Your task to perform on an android device: manage bookmarks in the chrome app Image 0: 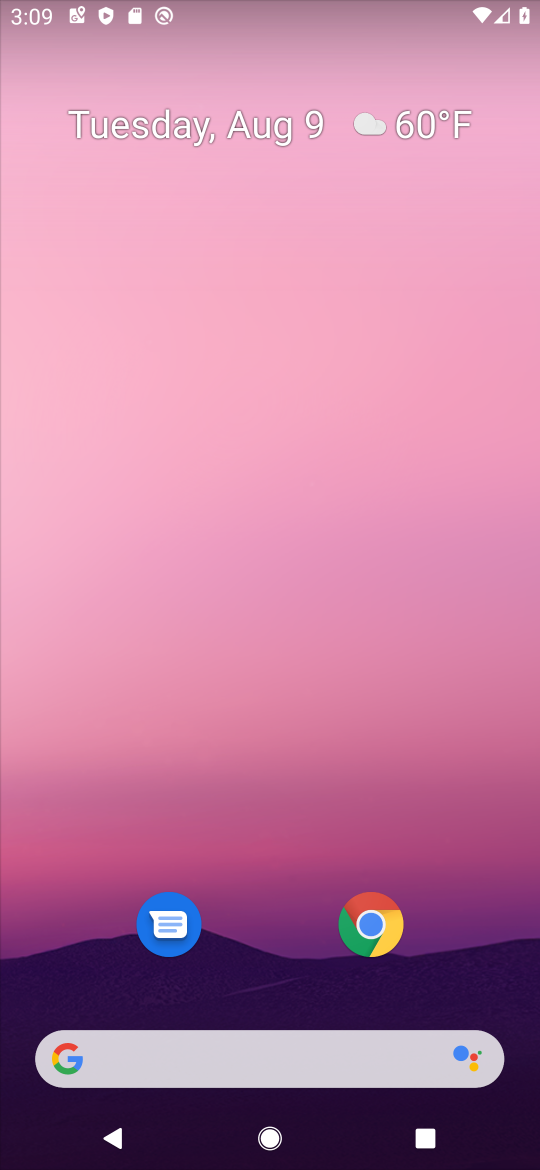
Step 0: drag from (281, 878) to (376, 0)
Your task to perform on an android device: manage bookmarks in the chrome app Image 1: 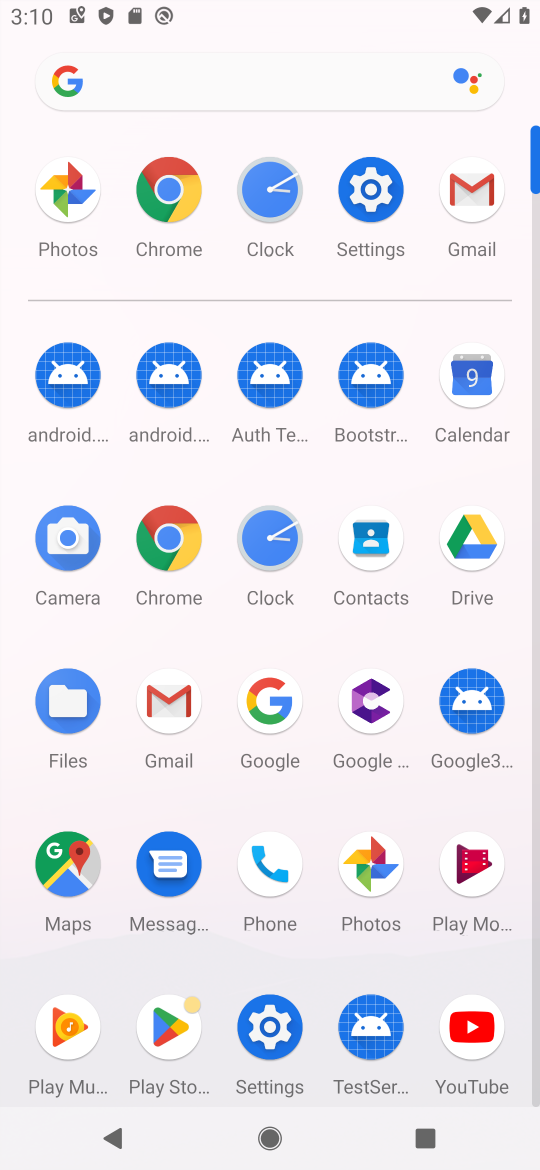
Step 1: click (180, 193)
Your task to perform on an android device: manage bookmarks in the chrome app Image 2: 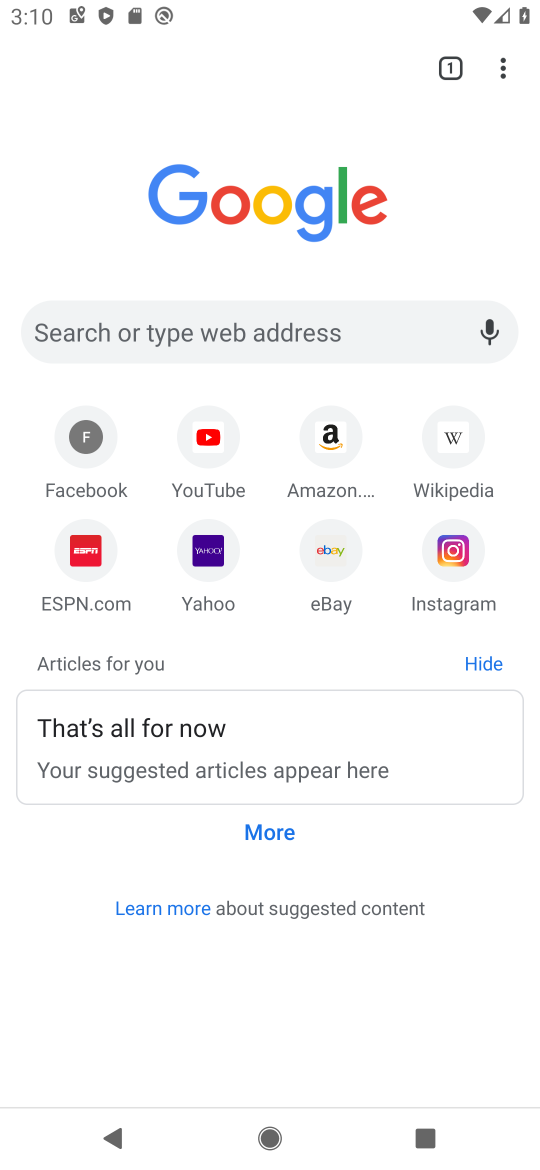
Step 2: click (506, 66)
Your task to perform on an android device: manage bookmarks in the chrome app Image 3: 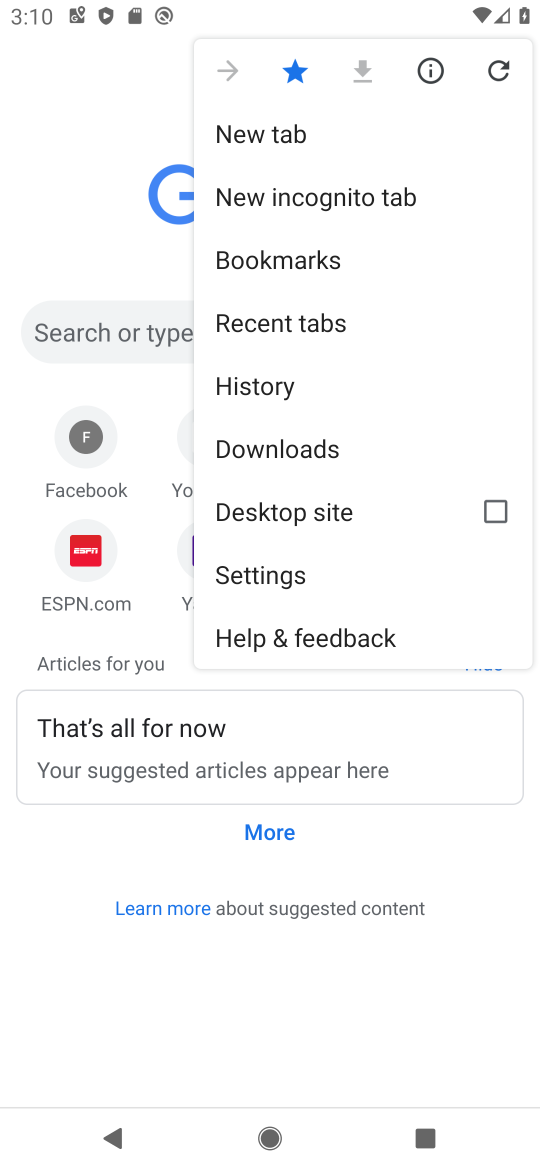
Step 3: click (333, 257)
Your task to perform on an android device: manage bookmarks in the chrome app Image 4: 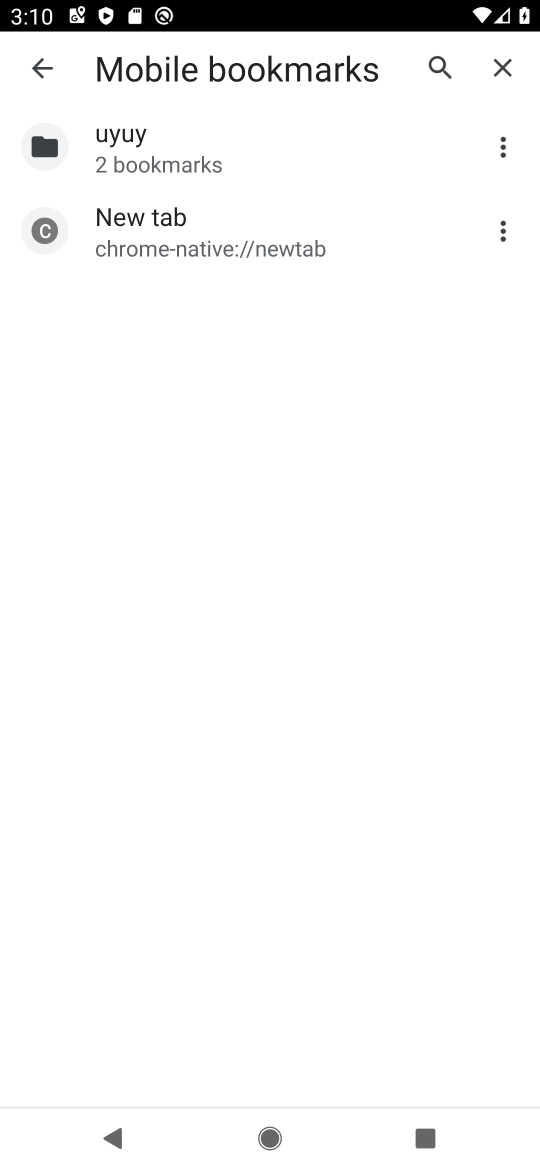
Step 4: click (505, 233)
Your task to perform on an android device: manage bookmarks in the chrome app Image 5: 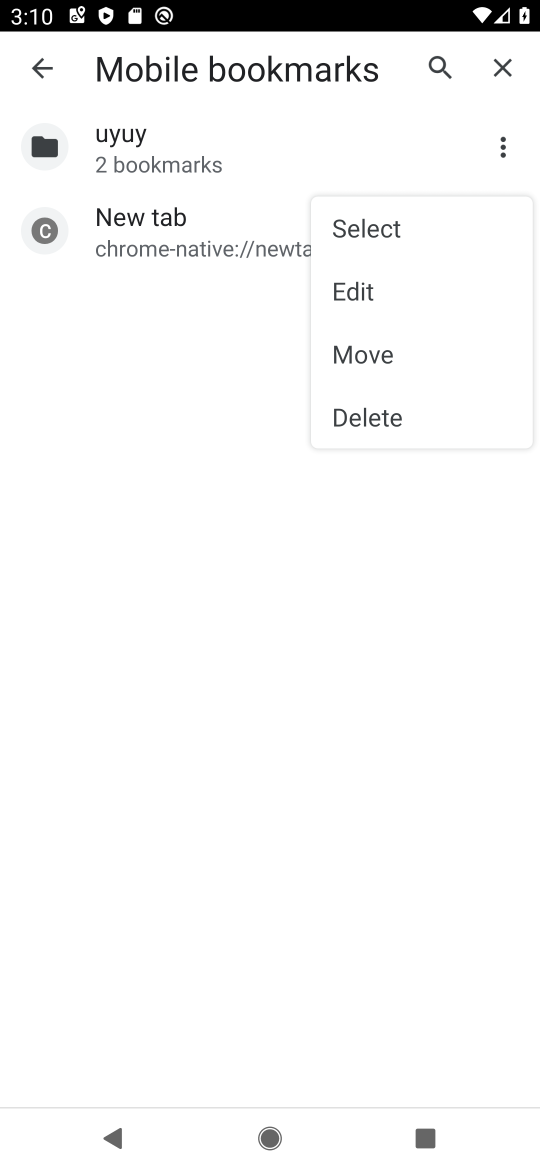
Step 5: click (408, 291)
Your task to perform on an android device: manage bookmarks in the chrome app Image 6: 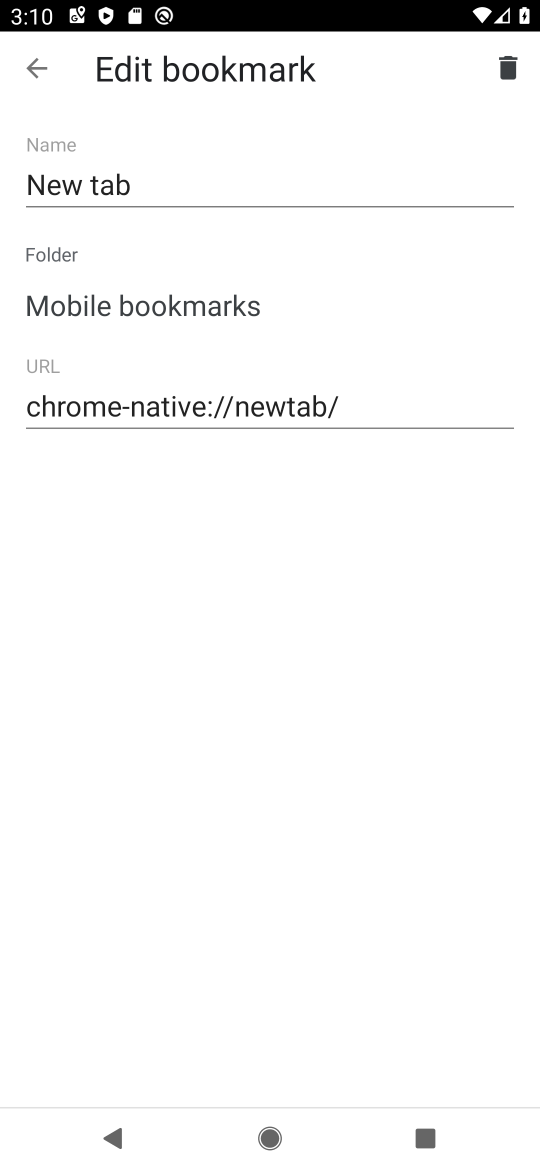
Step 6: task complete